Your task to perform on an android device: Add duracell triple a to the cart on walmart, then select checkout. Image 0: 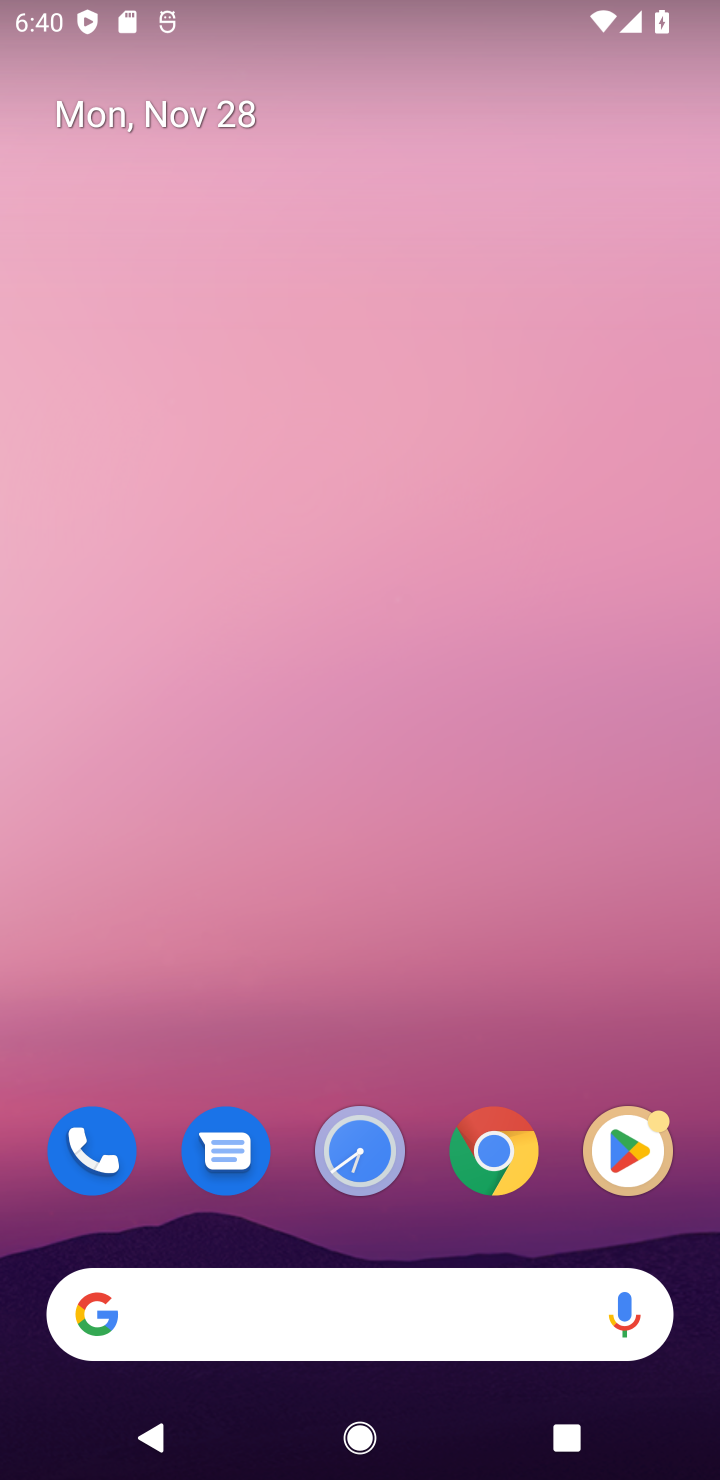
Step 0: click (360, 1308)
Your task to perform on an android device: Add duracell triple a to the cart on walmart, then select checkout. Image 1: 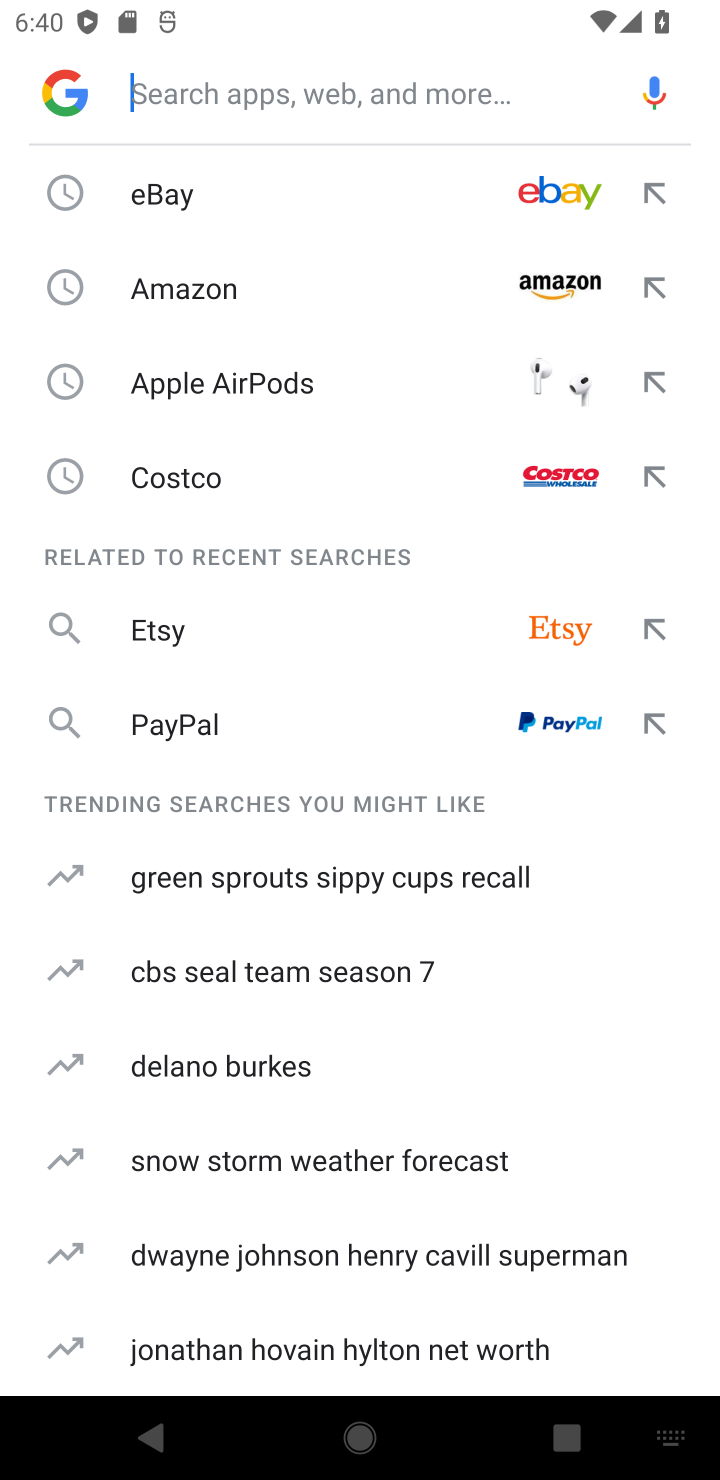
Step 1: type "duracell"
Your task to perform on an android device: Add duracell triple a to the cart on walmart, then select checkout. Image 2: 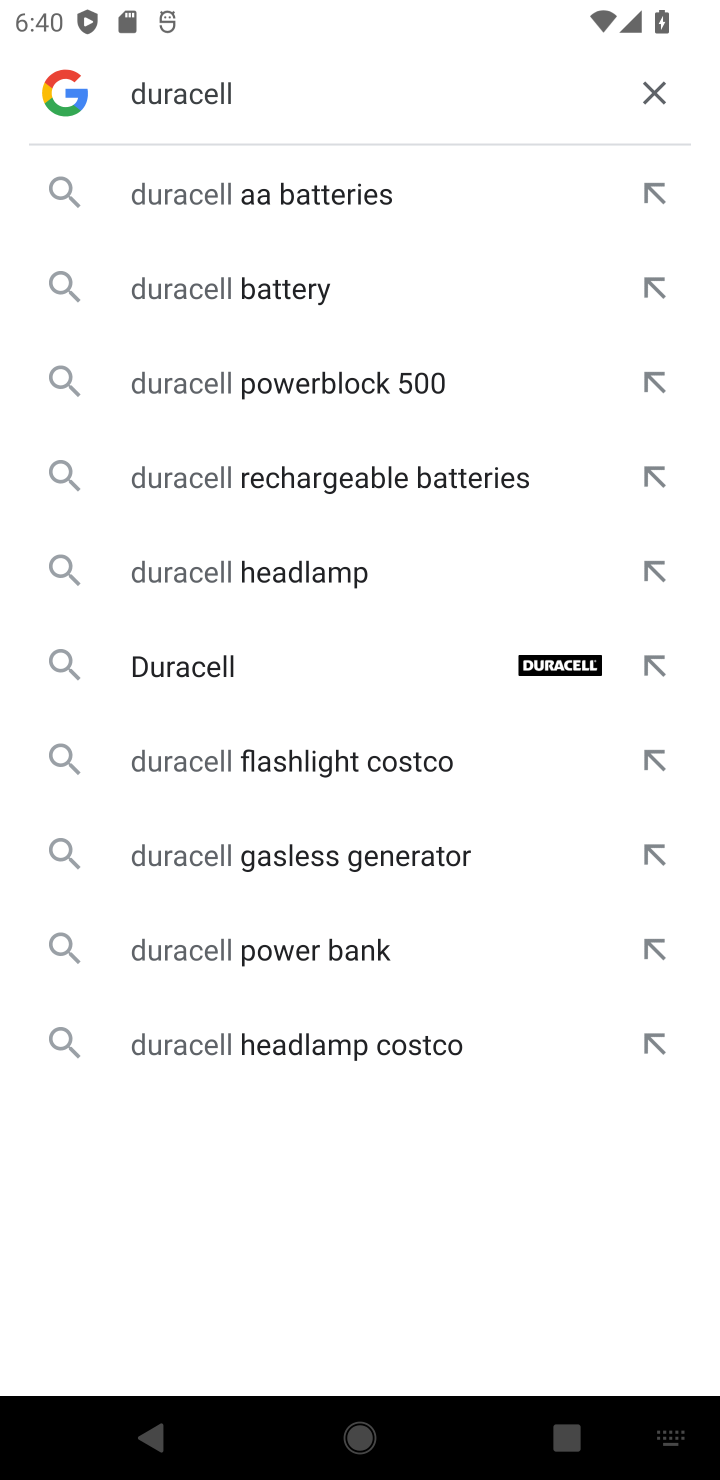
Step 2: click (312, 178)
Your task to perform on an android device: Add duracell triple a to the cart on walmart, then select checkout. Image 3: 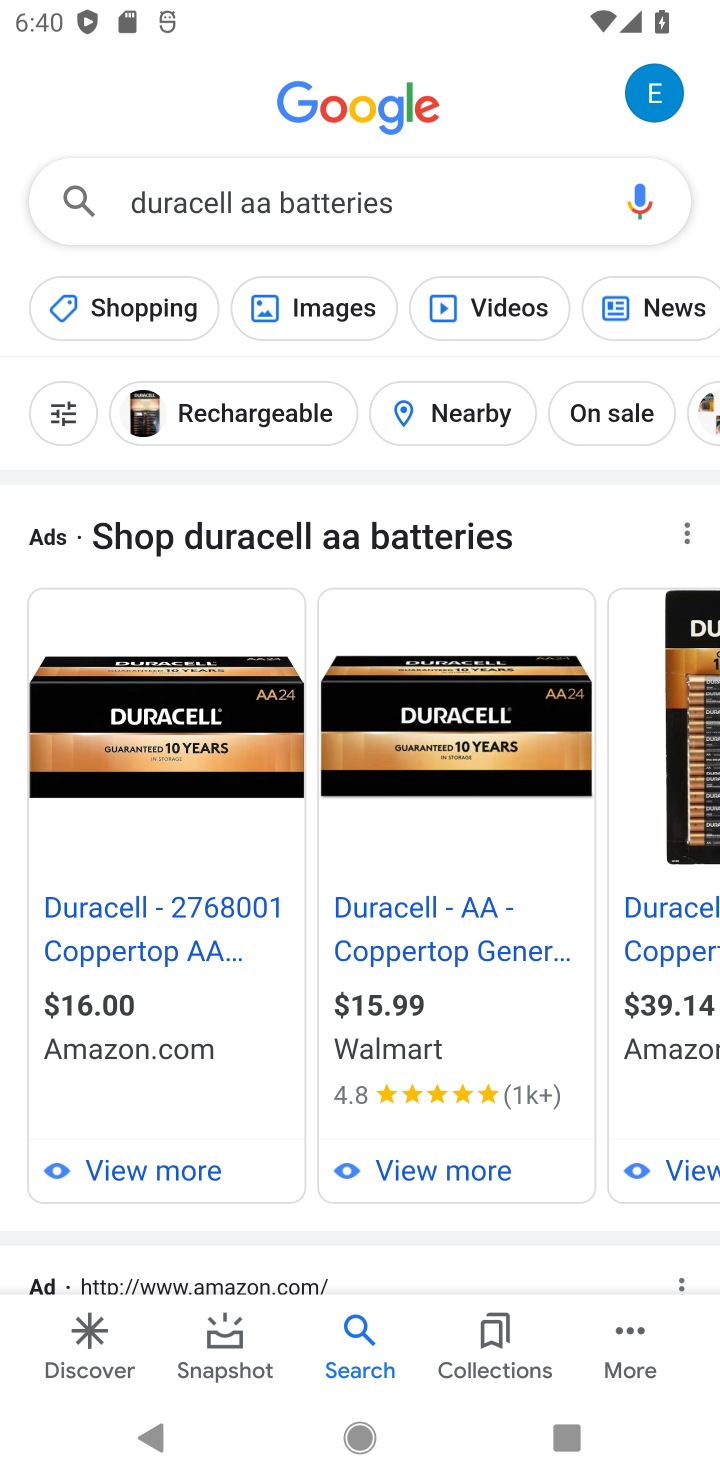
Step 3: click (228, 1007)
Your task to perform on an android device: Add duracell triple a to the cart on walmart, then select checkout. Image 4: 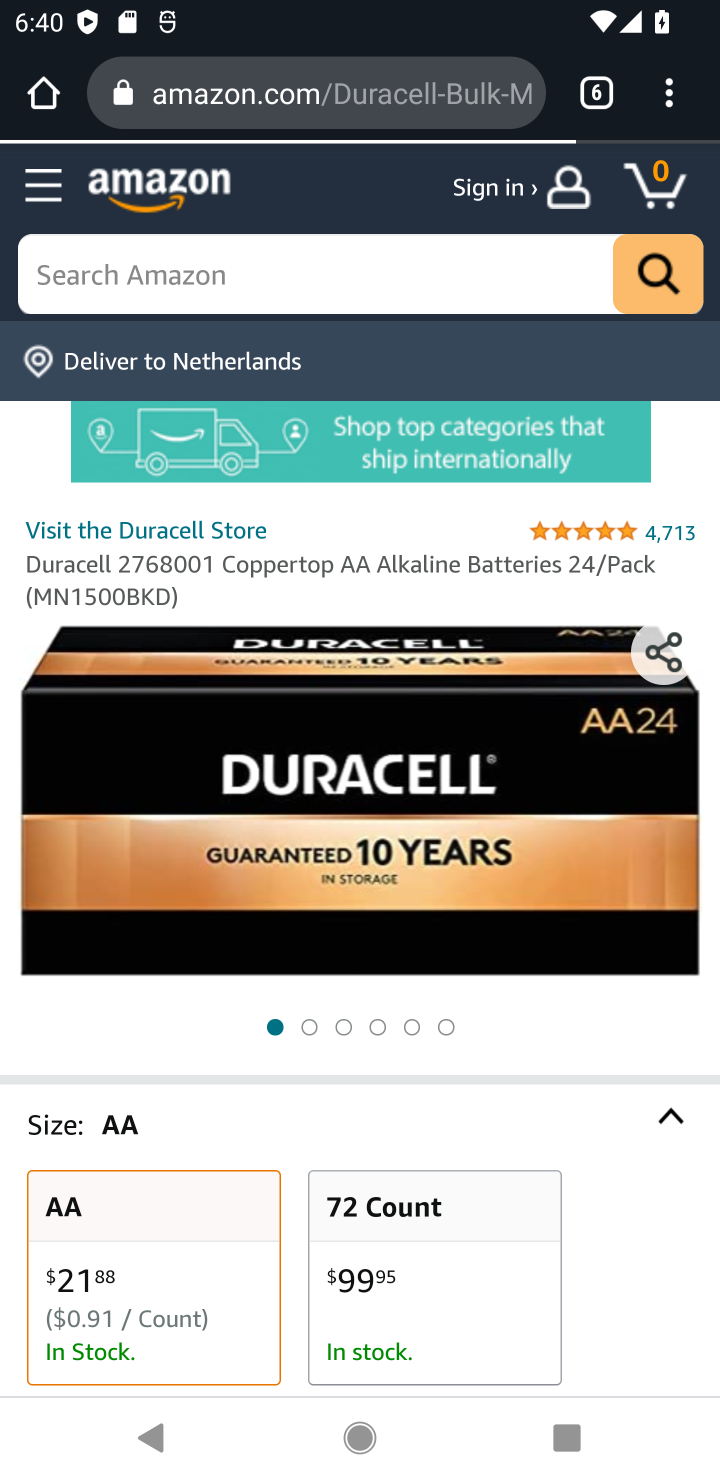
Step 4: drag from (623, 1274) to (609, 497)
Your task to perform on an android device: Add duracell triple a to the cart on walmart, then select checkout. Image 5: 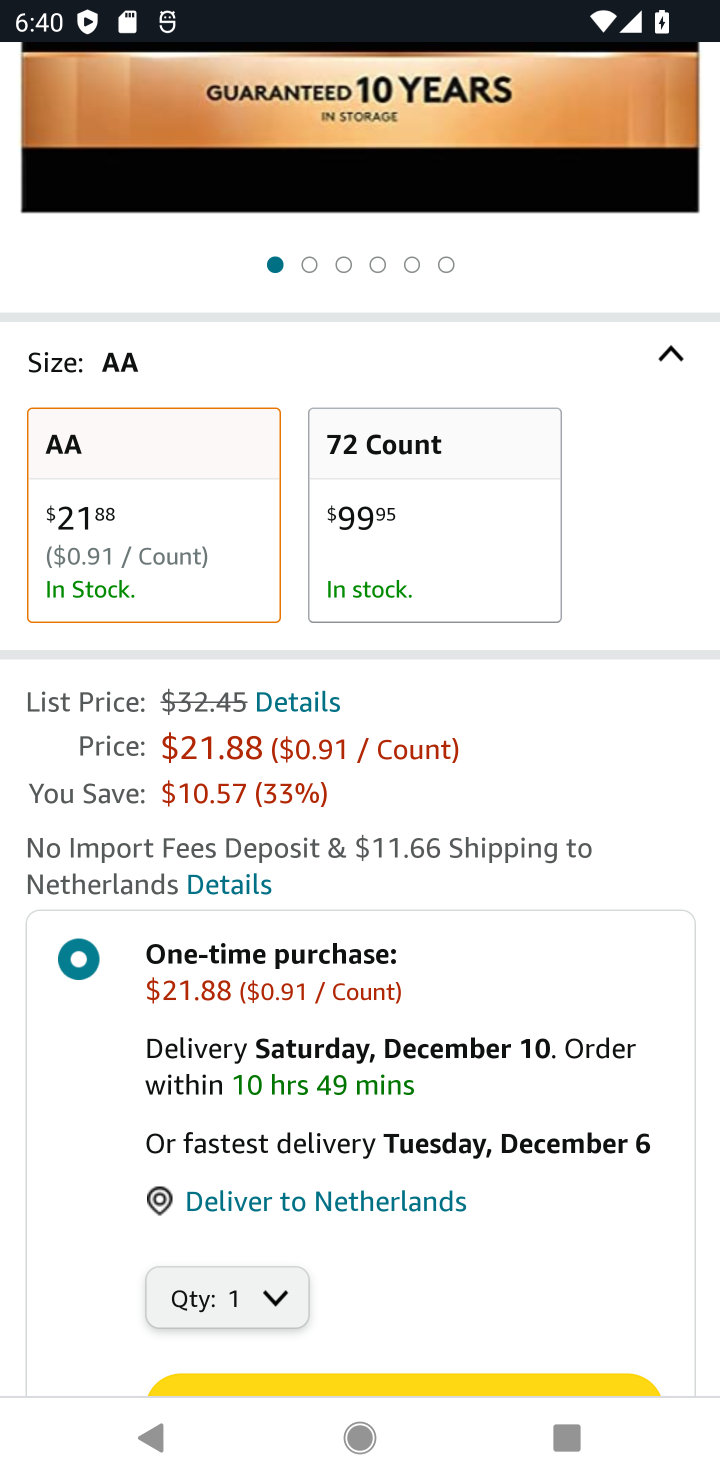
Step 5: drag from (490, 1272) to (509, 775)
Your task to perform on an android device: Add duracell triple a to the cart on walmart, then select checkout. Image 6: 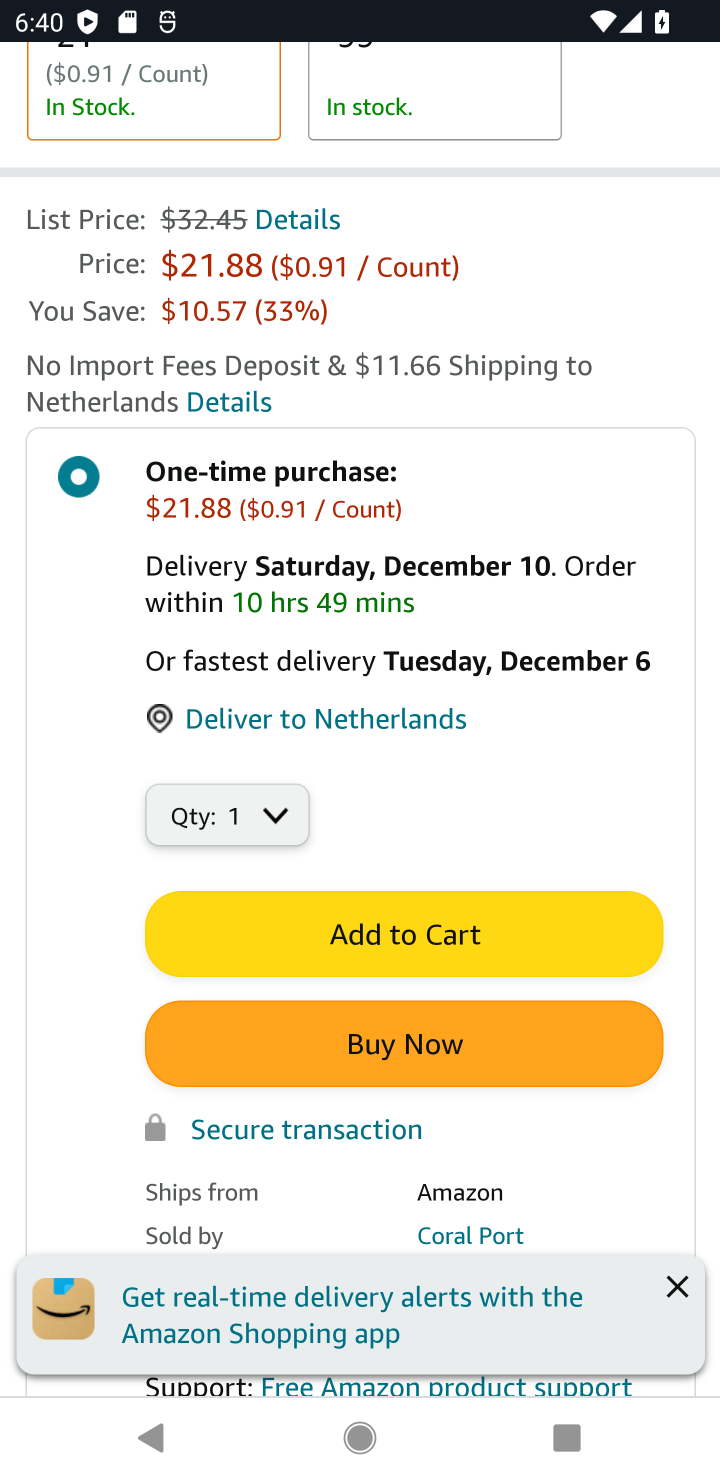
Step 6: click (421, 939)
Your task to perform on an android device: Add duracell triple a to the cart on walmart, then select checkout. Image 7: 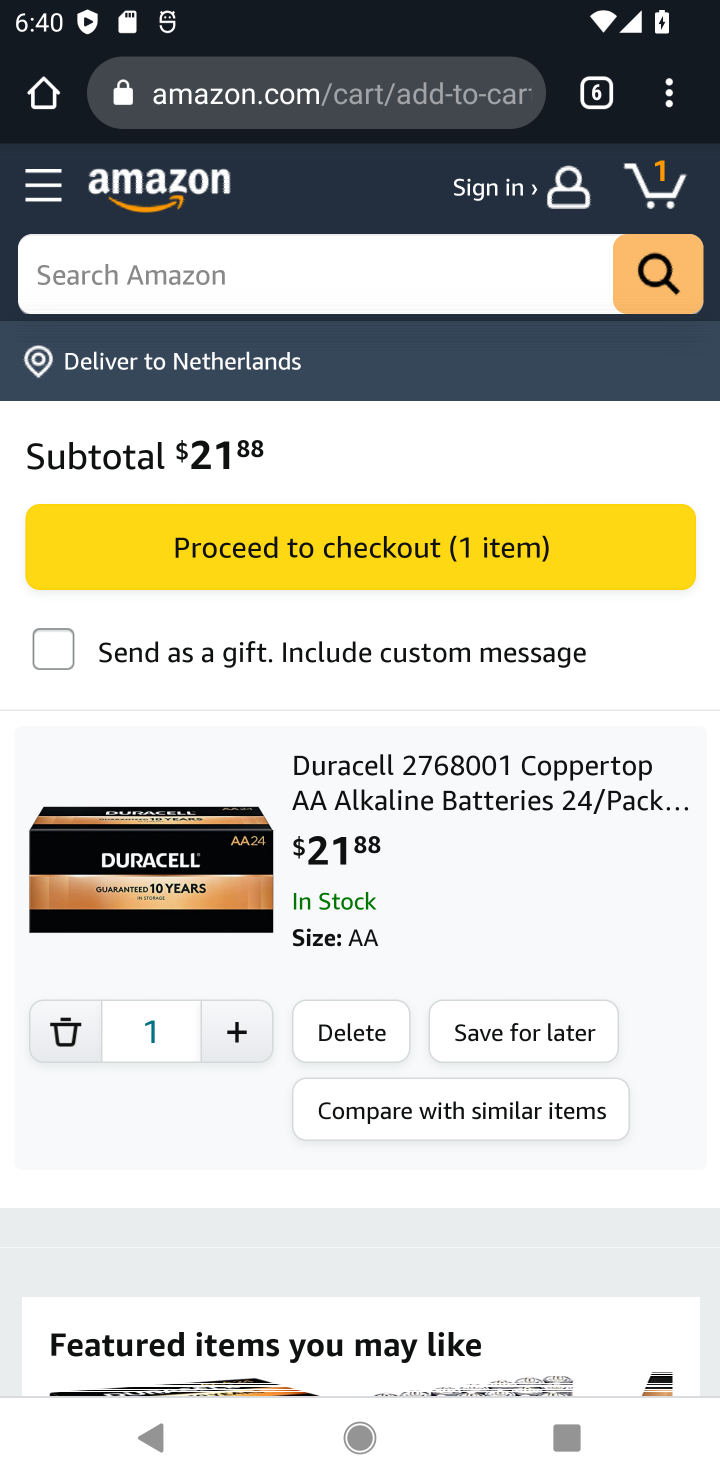
Step 7: task complete